Your task to perform on an android device: Turn on the flashlight Image 0: 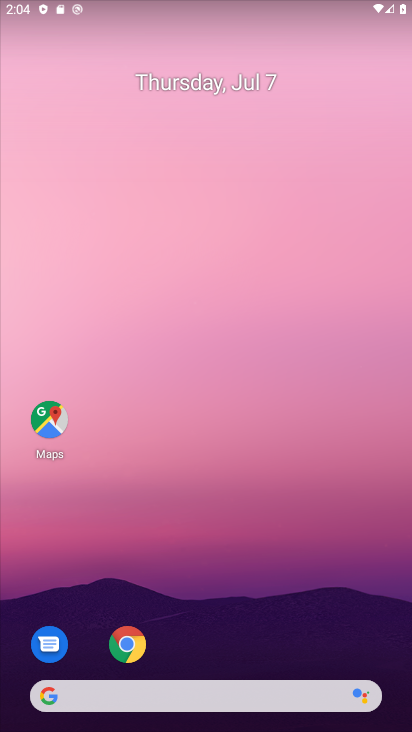
Step 0: drag from (321, 624) to (231, 193)
Your task to perform on an android device: Turn on the flashlight Image 1: 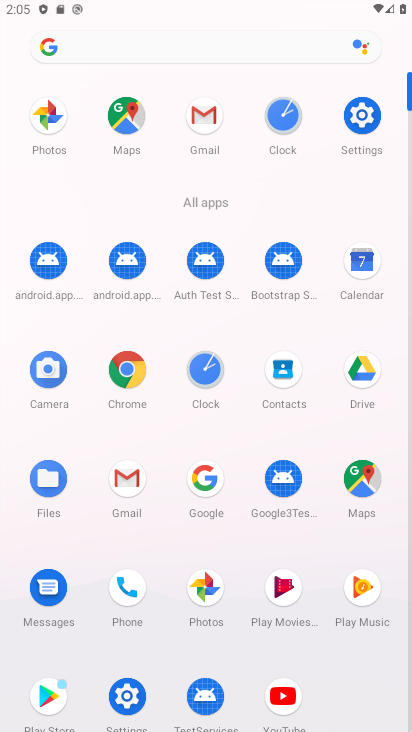
Step 1: drag from (256, 2) to (271, 410)
Your task to perform on an android device: Turn on the flashlight Image 2: 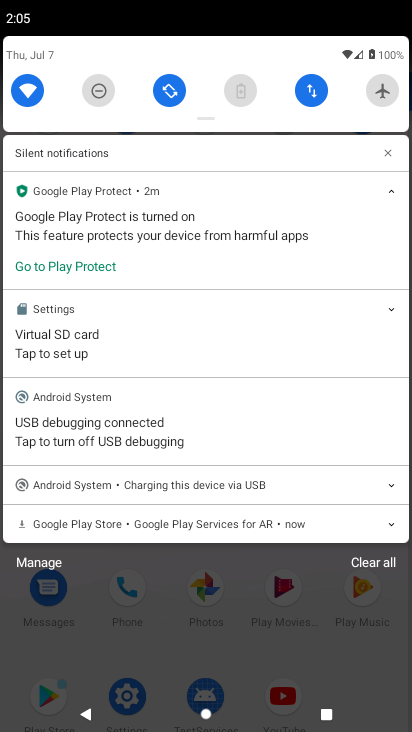
Step 2: drag from (203, 93) to (272, 617)
Your task to perform on an android device: Turn on the flashlight Image 3: 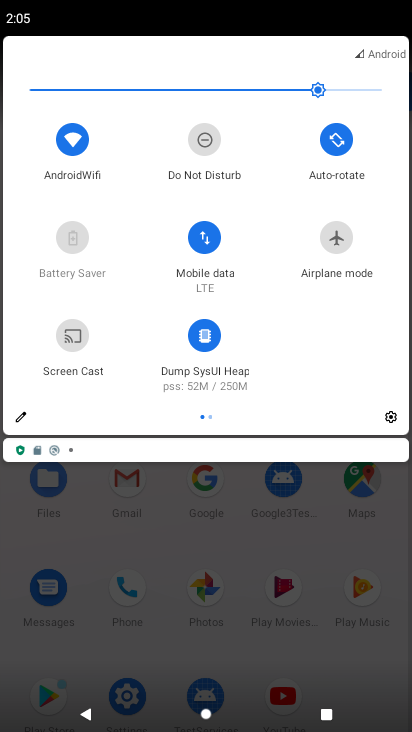
Step 3: drag from (366, 317) to (81, 291)
Your task to perform on an android device: Turn on the flashlight Image 4: 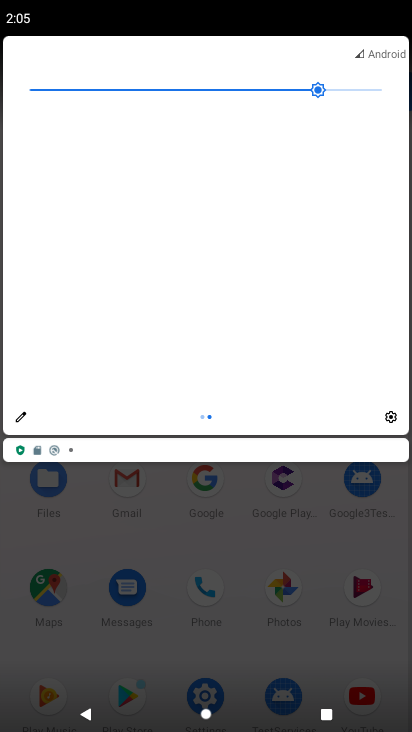
Step 4: click (18, 424)
Your task to perform on an android device: Turn on the flashlight Image 5: 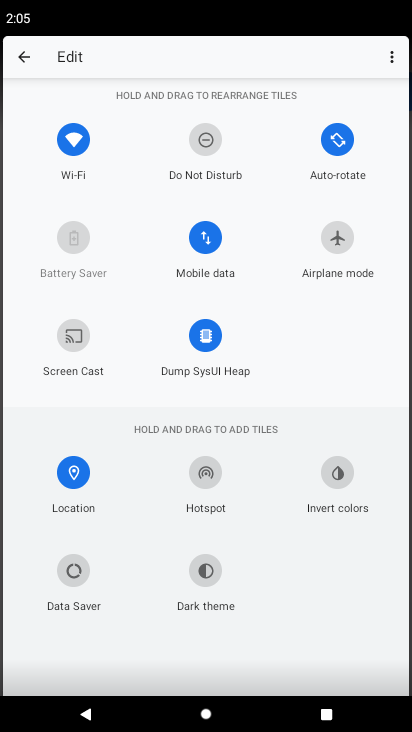
Step 5: task complete